Your task to perform on an android device: delete the emails in spam in the gmail app Image 0: 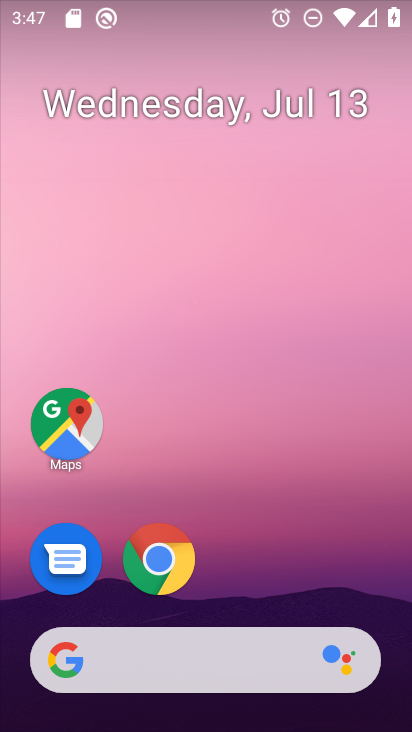
Step 0: drag from (366, 557) to (389, 197)
Your task to perform on an android device: delete the emails in spam in the gmail app Image 1: 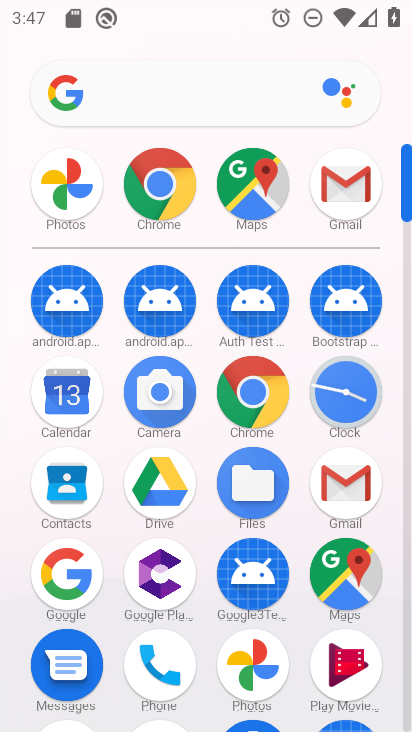
Step 1: click (362, 489)
Your task to perform on an android device: delete the emails in spam in the gmail app Image 2: 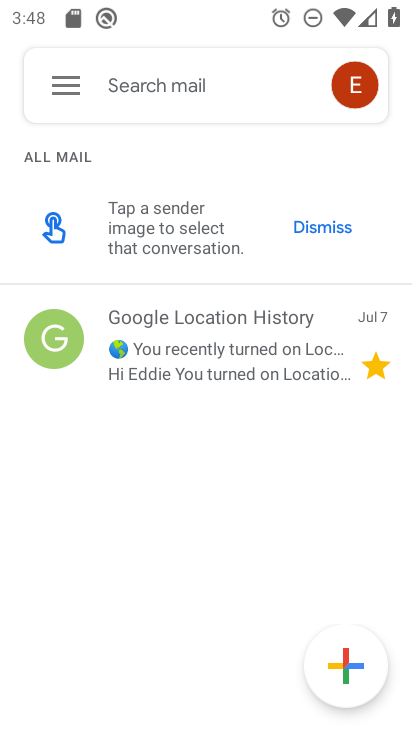
Step 2: click (52, 84)
Your task to perform on an android device: delete the emails in spam in the gmail app Image 3: 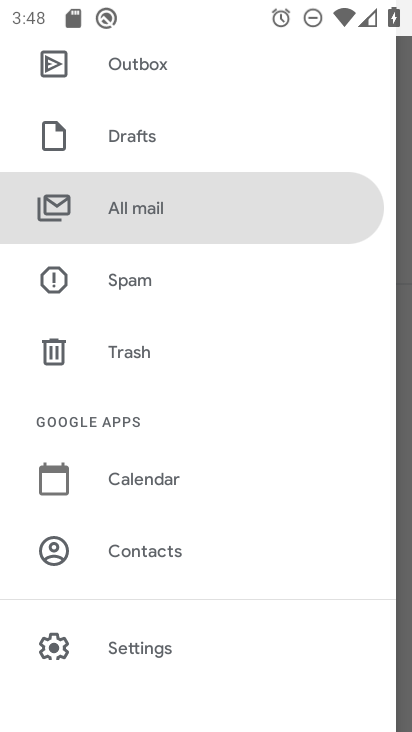
Step 3: drag from (283, 166) to (300, 262)
Your task to perform on an android device: delete the emails in spam in the gmail app Image 4: 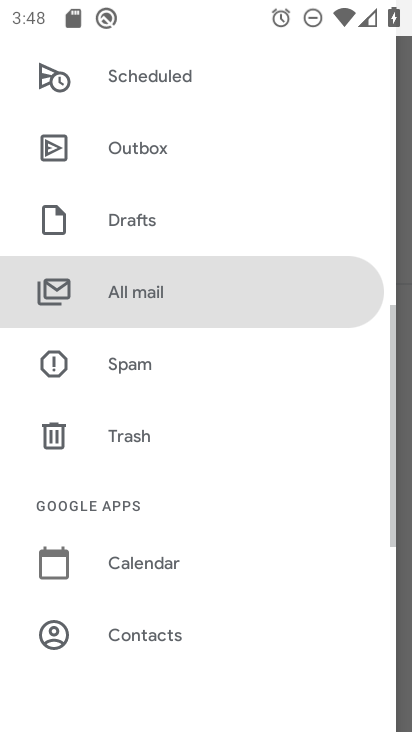
Step 4: drag from (301, 187) to (308, 298)
Your task to perform on an android device: delete the emails in spam in the gmail app Image 5: 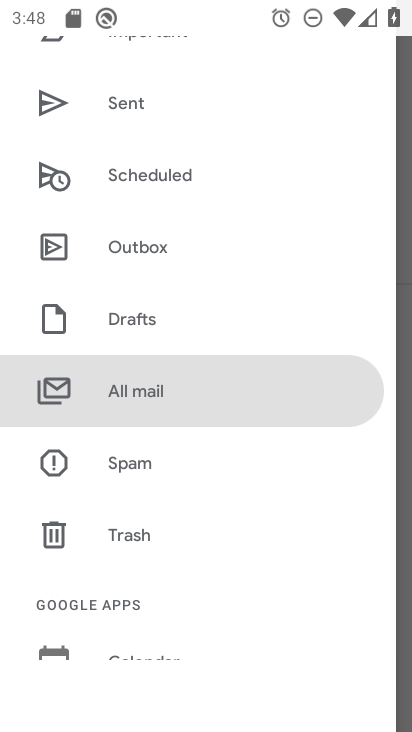
Step 5: drag from (313, 212) to (317, 333)
Your task to perform on an android device: delete the emails in spam in the gmail app Image 6: 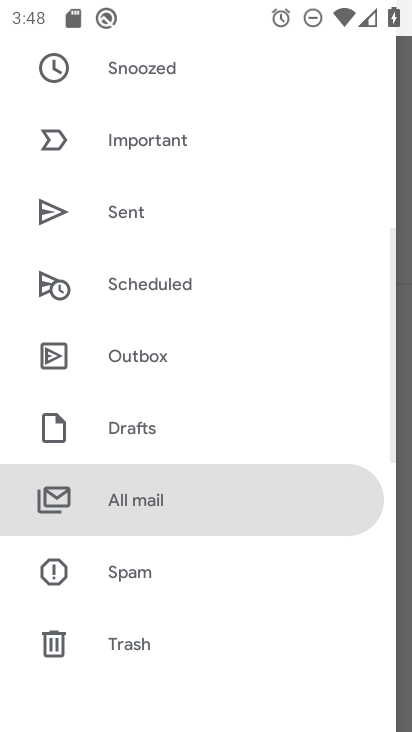
Step 6: drag from (321, 184) to (322, 297)
Your task to perform on an android device: delete the emails in spam in the gmail app Image 7: 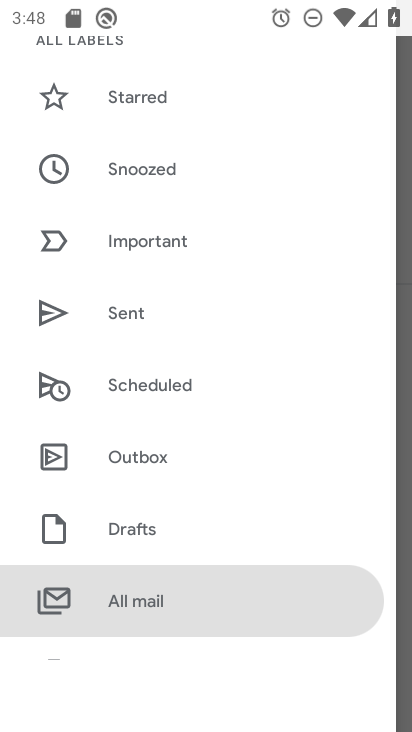
Step 7: drag from (312, 185) to (312, 290)
Your task to perform on an android device: delete the emails in spam in the gmail app Image 8: 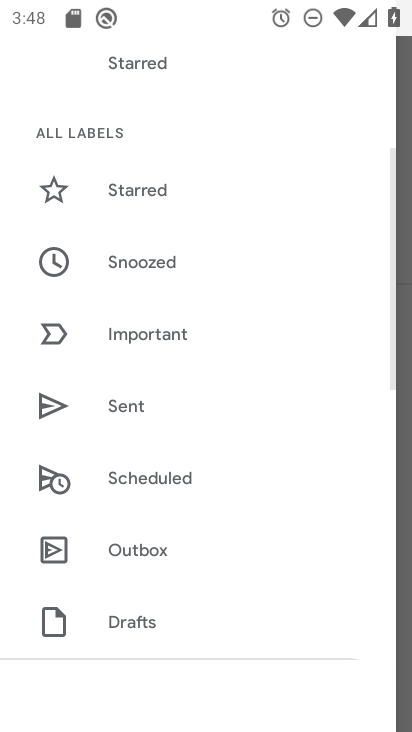
Step 8: drag from (305, 172) to (304, 299)
Your task to perform on an android device: delete the emails in spam in the gmail app Image 9: 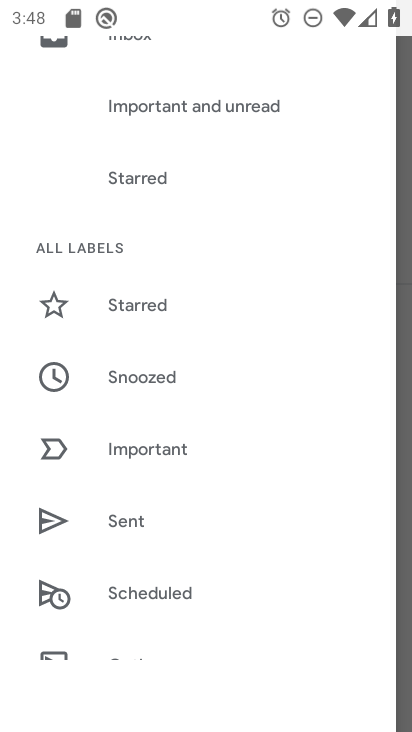
Step 9: drag from (301, 174) to (303, 267)
Your task to perform on an android device: delete the emails in spam in the gmail app Image 10: 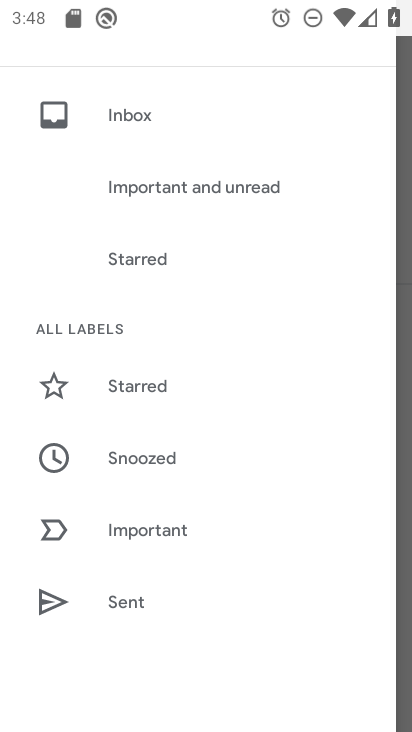
Step 10: drag from (303, 173) to (303, 298)
Your task to perform on an android device: delete the emails in spam in the gmail app Image 11: 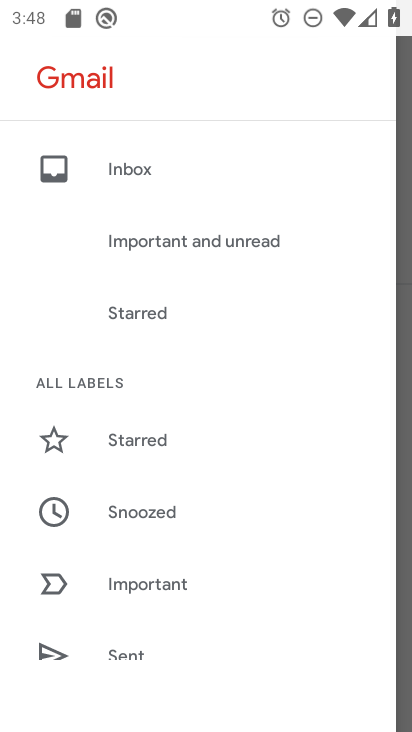
Step 11: drag from (292, 369) to (304, 248)
Your task to perform on an android device: delete the emails in spam in the gmail app Image 12: 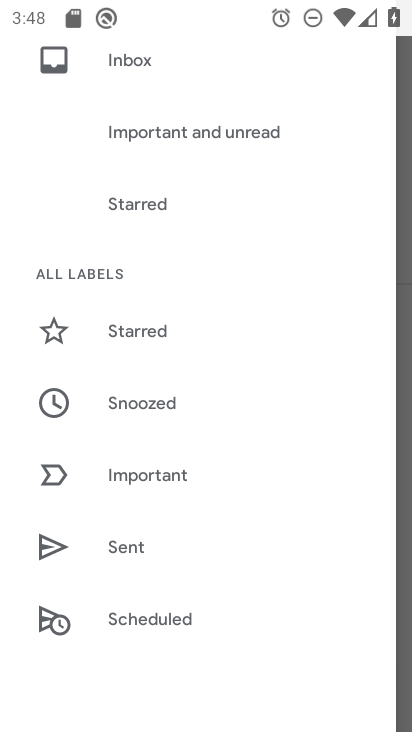
Step 12: drag from (287, 433) to (299, 339)
Your task to perform on an android device: delete the emails in spam in the gmail app Image 13: 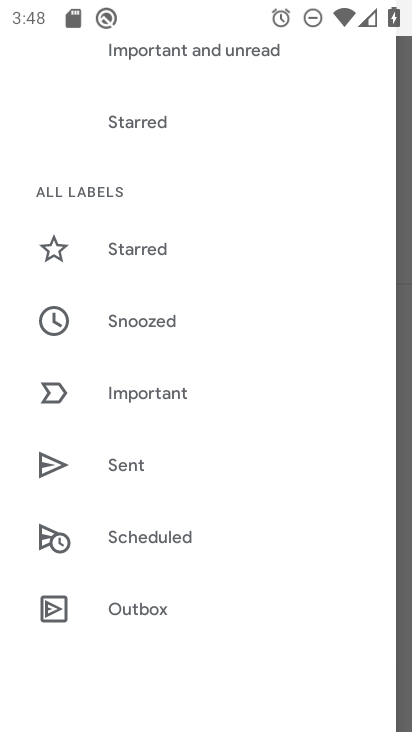
Step 13: drag from (299, 442) to (306, 347)
Your task to perform on an android device: delete the emails in spam in the gmail app Image 14: 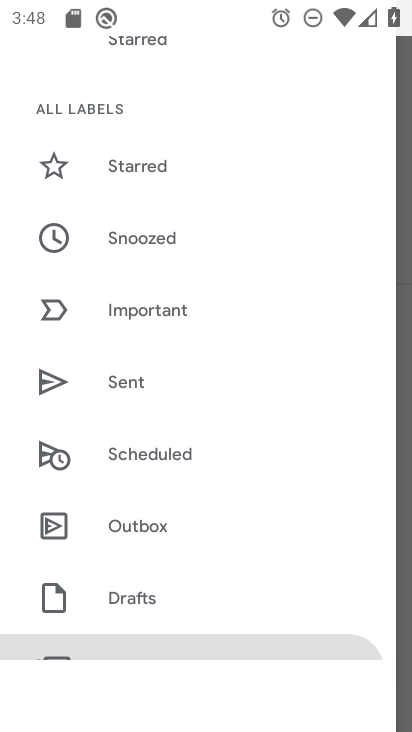
Step 14: drag from (307, 429) to (315, 343)
Your task to perform on an android device: delete the emails in spam in the gmail app Image 15: 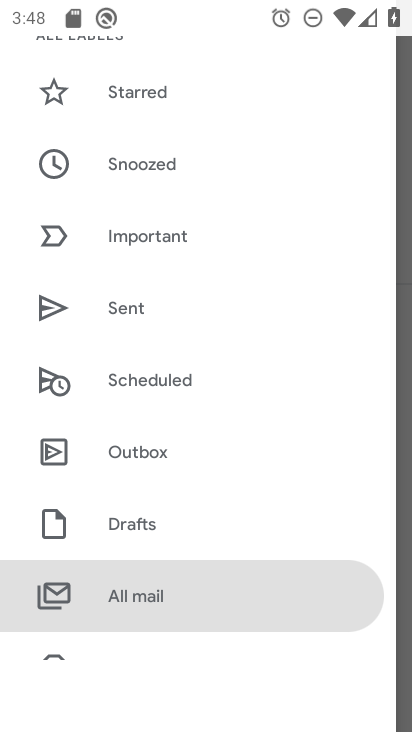
Step 15: drag from (310, 417) to (316, 295)
Your task to perform on an android device: delete the emails in spam in the gmail app Image 16: 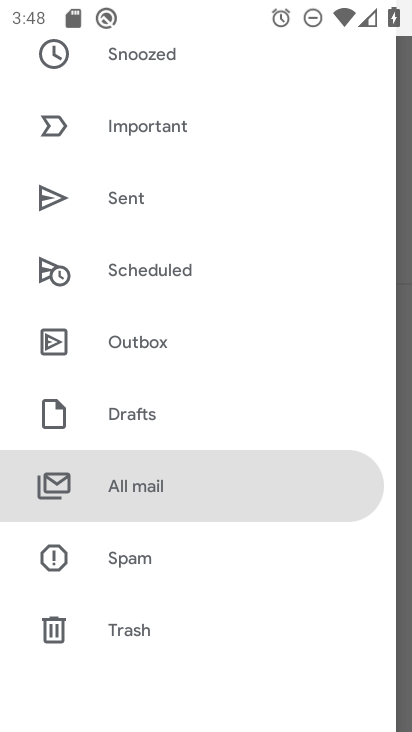
Step 16: drag from (300, 461) to (300, 247)
Your task to perform on an android device: delete the emails in spam in the gmail app Image 17: 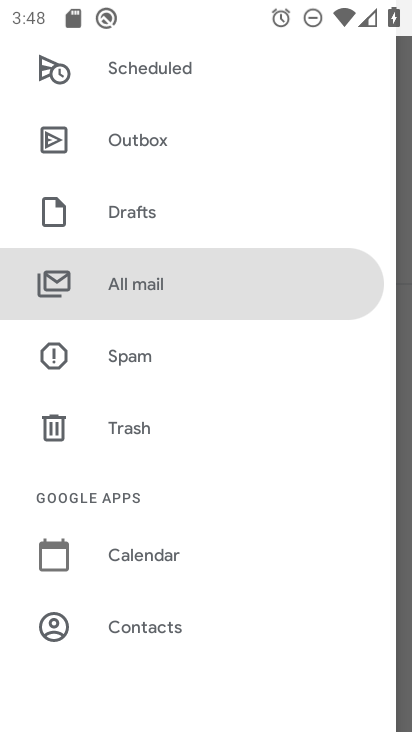
Step 17: click (164, 360)
Your task to perform on an android device: delete the emails in spam in the gmail app Image 18: 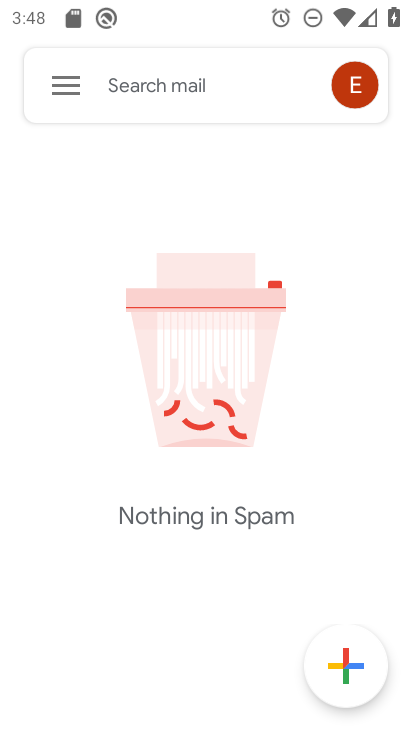
Step 18: task complete